Your task to perform on an android device: open chrome and create a bookmark for the current page Image 0: 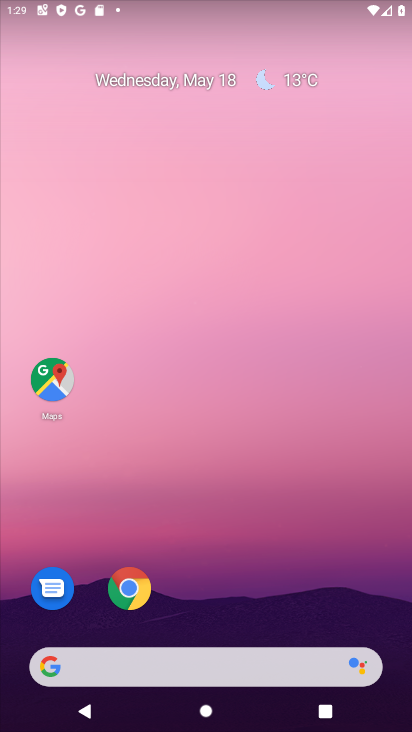
Step 0: click (405, 152)
Your task to perform on an android device: open chrome and create a bookmark for the current page Image 1: 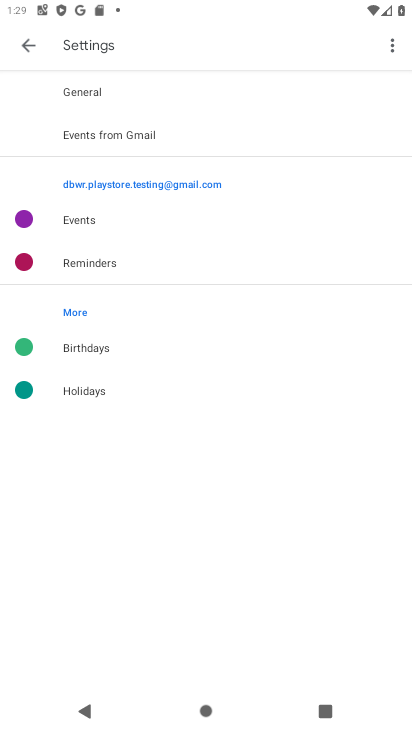
Step 1: press home button
Your task to perform on an android device: open chrome and create a bookmark for the current page Image 2: 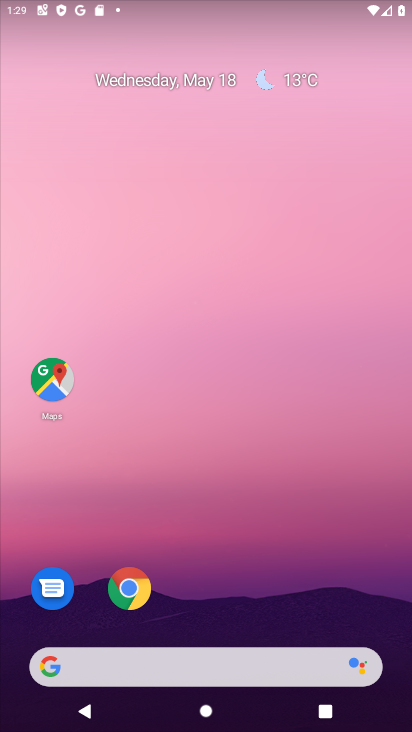
Step 2: drag from (183, 597) to (229, 240)
Your task to perform on an android device: open chrome and create a bookmark for the current page Image 3: 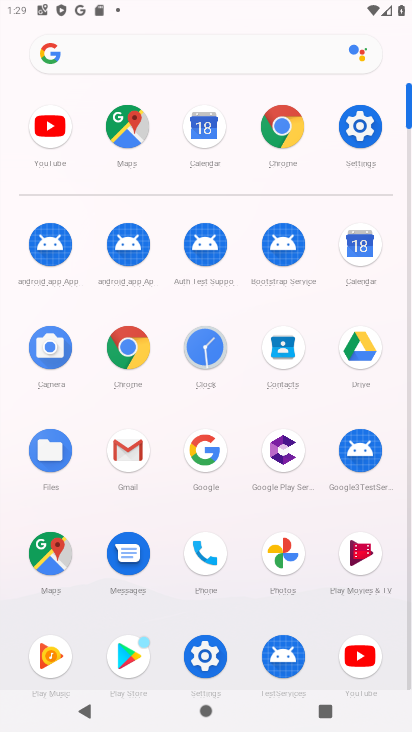
Step 3: click (280, 118)
Your task to perform on an android device: open chrome and create a bookmark for the current page Image 4: 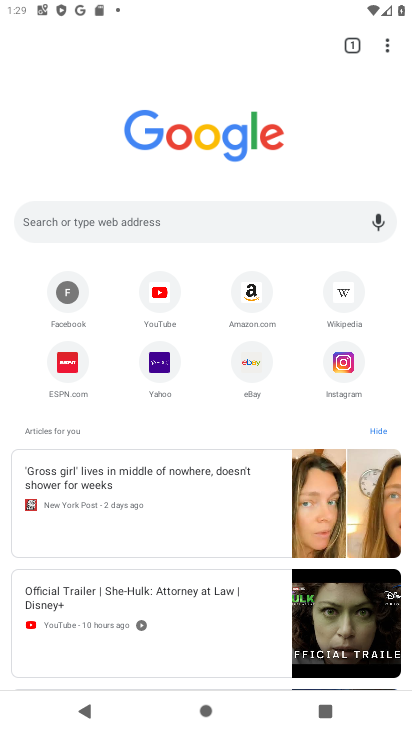
Step 4: click (386, 41)
Your task to perform on an android device: open chrome and create a bookmark for the current page Image 5: 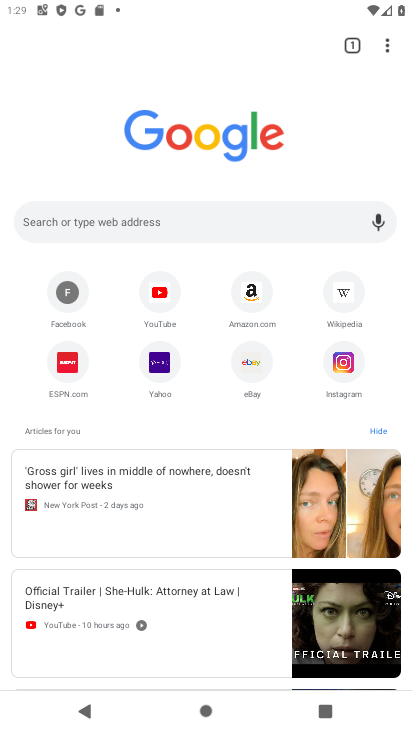
Step 5: click (387, 50)
Your task to perform on an android device: open chrome and create a bookmark for the current page Image 6: 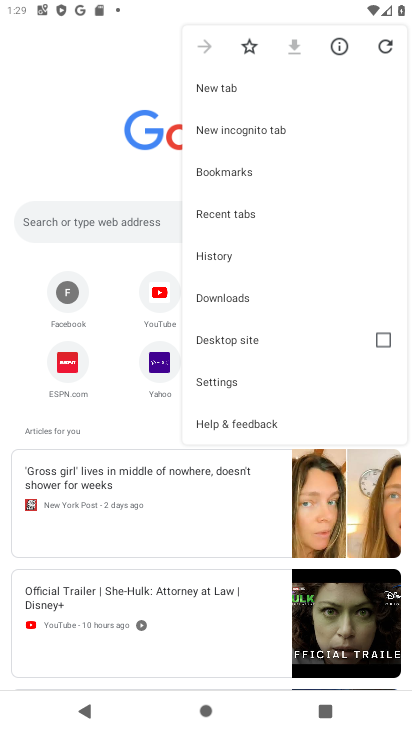
Step 6: click (255, 175)
Your task to perform on an android device: open chrome and create a bookmark for the current page Image 7: 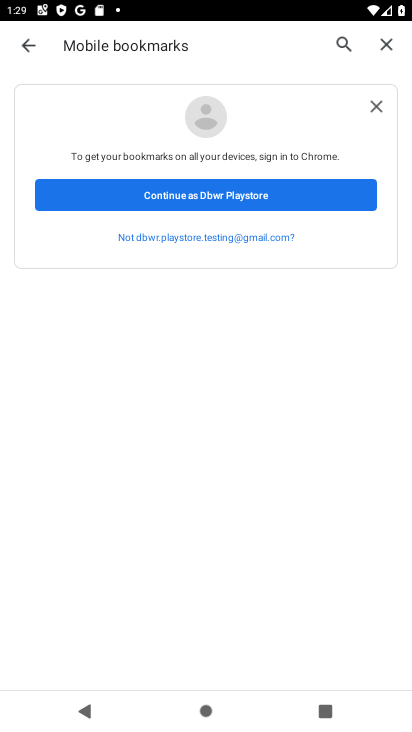
Step 7: click (30, 52)
Your task to perform on an android device: open chrome and create a bookmark for the current page Image 8: 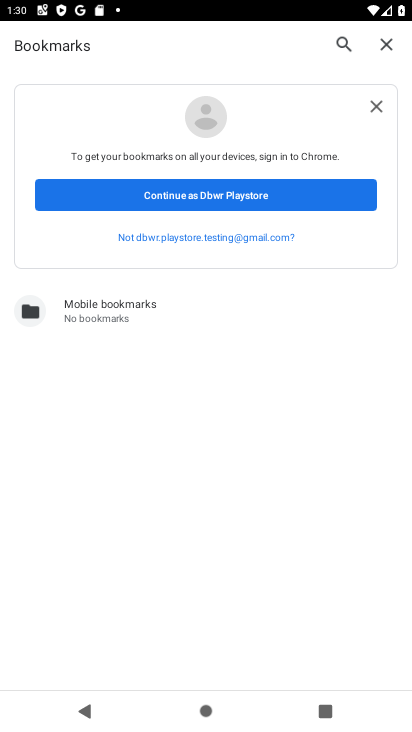
Step 8: click (387, 42)
Your task to perform on an android device: open chrome and create a bookmark for the current page Image 9: 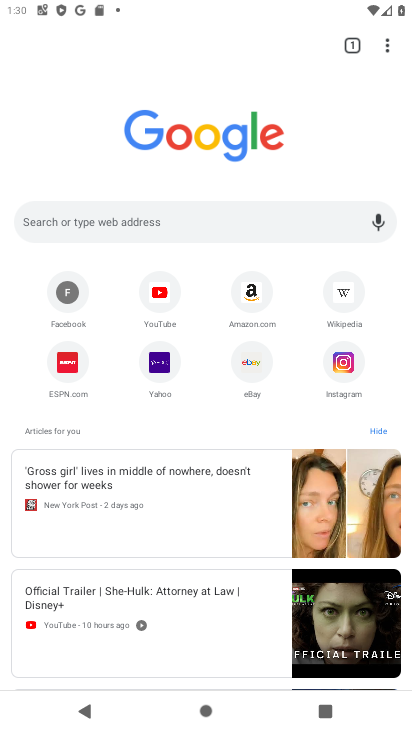
Step 9: click (387, 42)
Your task to perform on an android device: open chrome and create a bookmark for the current page Image 10: 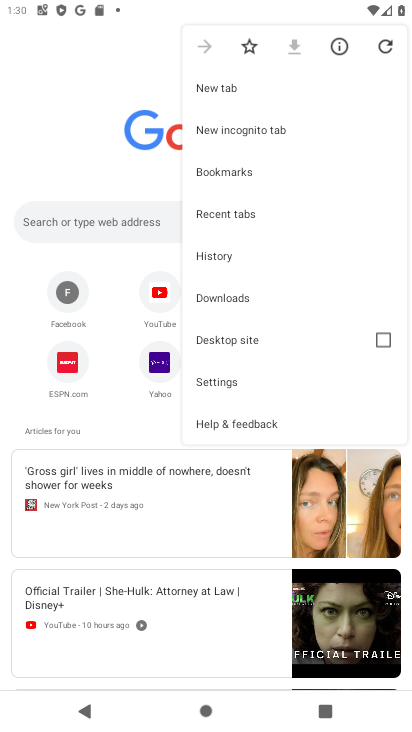
Step 10: click (243, 44)
Your task to perform on an android device: open chrome and create a bookmark for the current page Image 11: 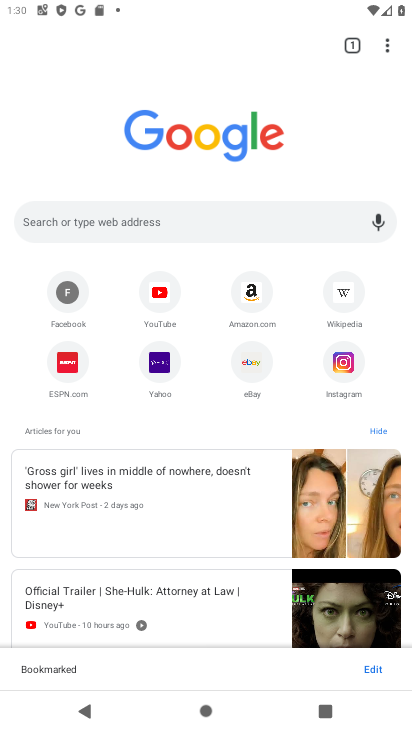
Step 11: task complete